Your task to perform on an android device: change the clock display to show seconds Image 0: 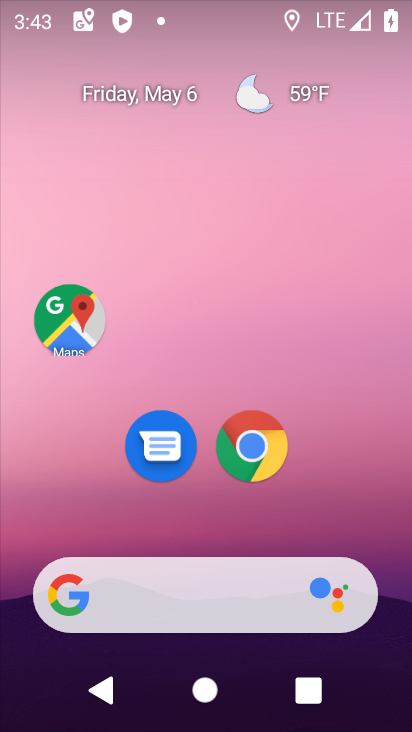
Step 0: drag from (348, 483) to (338, 80)
Your task to perform on an android device: change the clock display to show seconds Image 1: 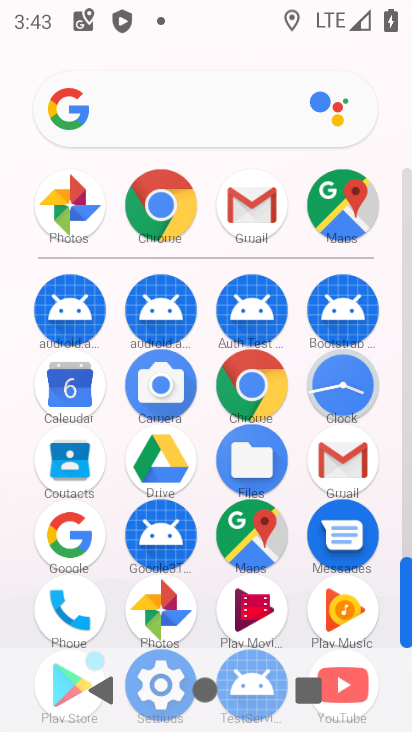
Step 1: click (371, 392)
Your task to perform on an android device: change the clock display to show seconds Image 2: 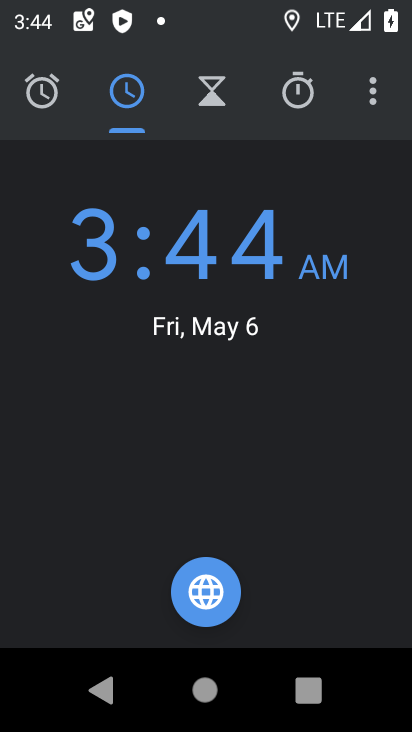
Step 2: click (379, 101)
Your task to perform on an android device: change the clock display to show seconds Image 3: 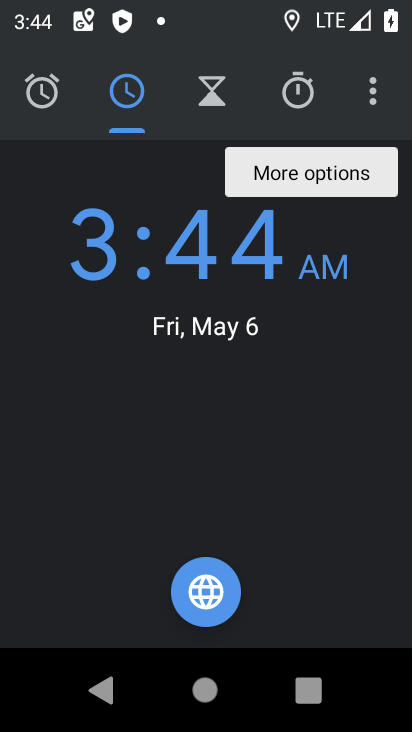
Step 3: click (379, 101)
Your task to perform on an android device: change the clock display to show seconds Image 4: 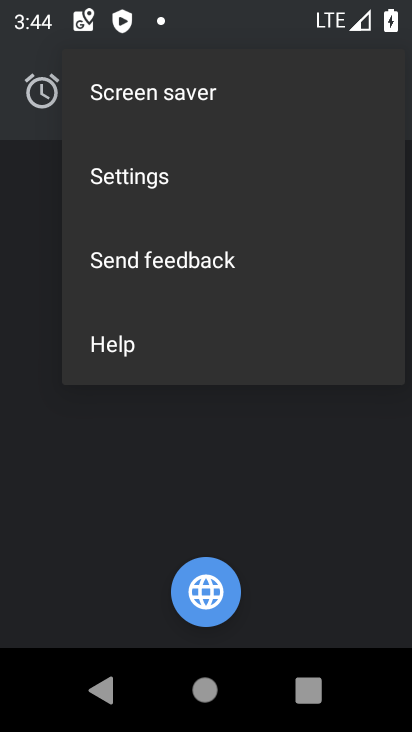
Step 4: click (178, 187)
Your task to perform on an android device: change the clock display to show seconds Image 5: 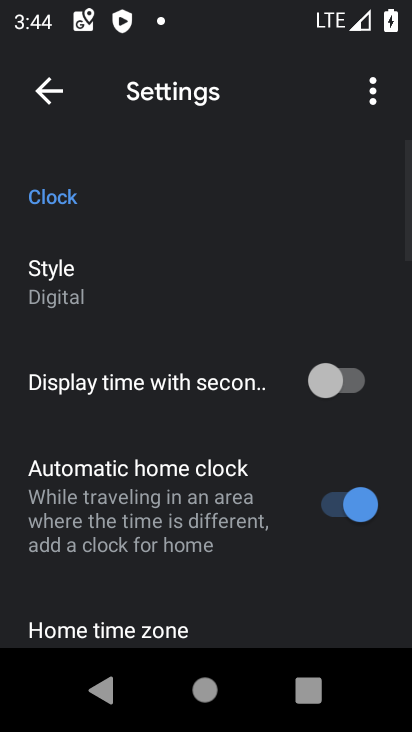
Step 5: drag from (268, 530) to (267, 426)
Your task to perform on an android device: change the clock display to show seconds Image 6: 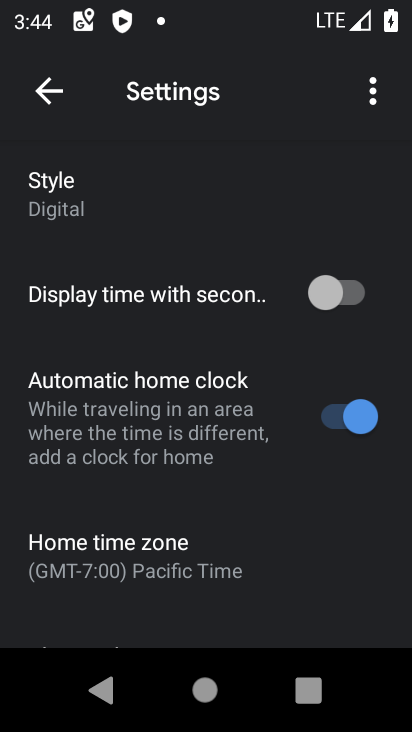
Step 6: click (345, 298)
Your task to perform on an android device: change the clock display to show seconds Image 7: 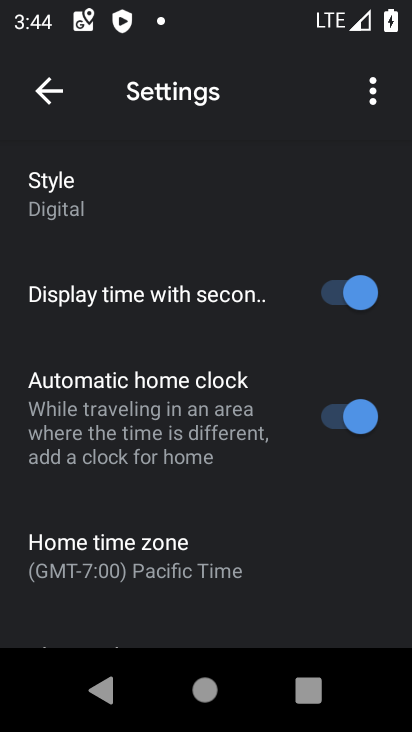
Step 7: task complete